Your task to perform on an android device: open app "Fetch Rewards" Image 0: 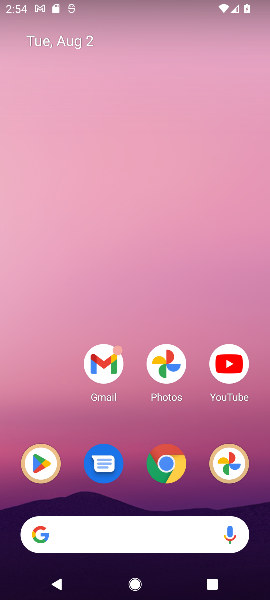
Step 0: press home button
Your task to perform on an android device: open app "Fetch Rewards" Image 1: 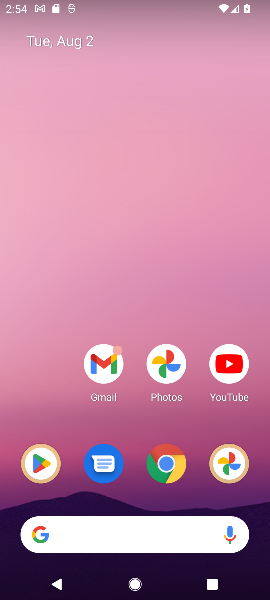
Step 1: click (36, 463)
Your task to perform on an android device: open app "Fetch Rewards" Image 2: 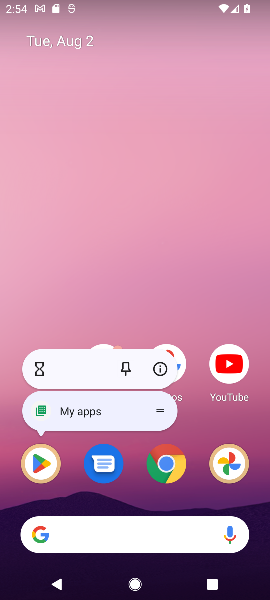
Step 2: click (36, 464)
Your task to perform on an android device: open app "Fetch Rewards" Image 3: 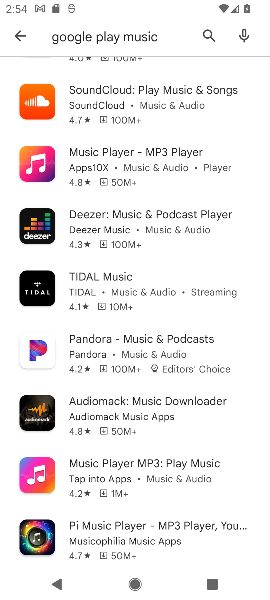
Step 3: click (207, 30)
Your task to perform on an android device: open app "Fetch Rewards" Image 4: 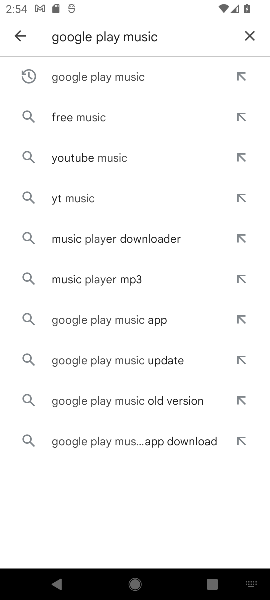
Step 4: click (254, 35)
Your task to perform on an android device: open app "Fetch Rewards" Image 5: 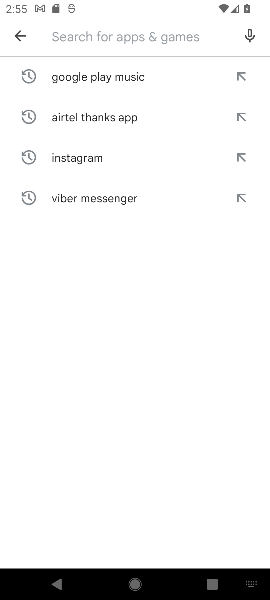
Step 5: type "Fetch Rewards"
Your task to perform on an android device: open app "Fetch Rewards" Image 6: 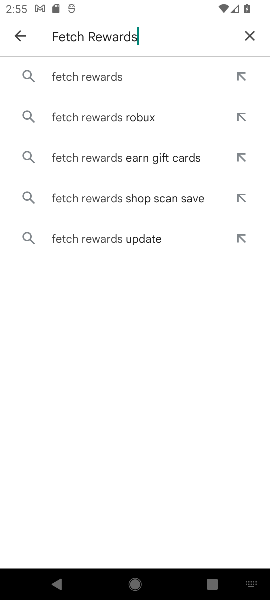
Step 6: click (73, 73)
Your task to perform on an android device: open app "Fetch Rewards" Image 7: 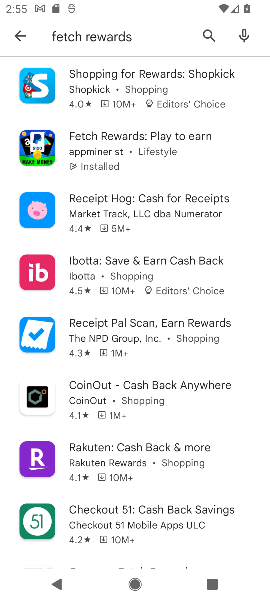
Step 7: click (90, 151)
Your task to perform on an android device: open app "Fetch Rewards" Image 8: 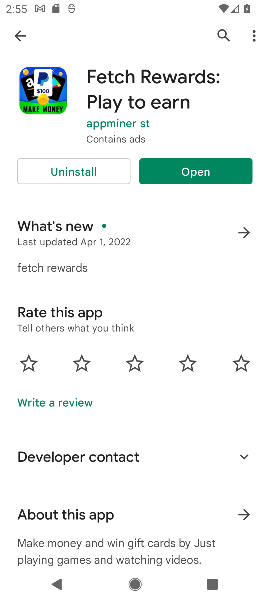
Step 8: click (208, 169)
Your task to perform on an android device: open app "Fetch Rewards" Image 9: 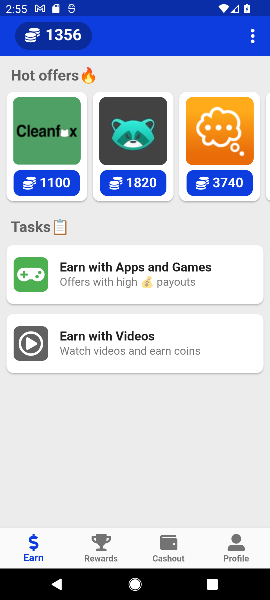
Step 9: task complete